Your task to perform on an android device: turn off wifi Image 0: 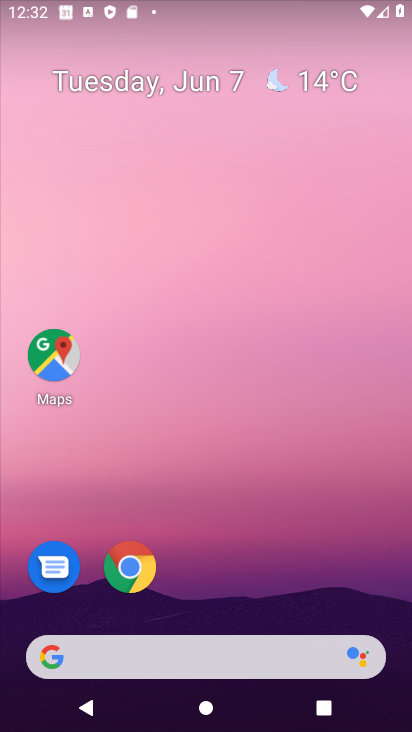
Step 0: drag from (239, 642) to (247, 131)
Your task to perform on an android device: turn off wifi Image 1: 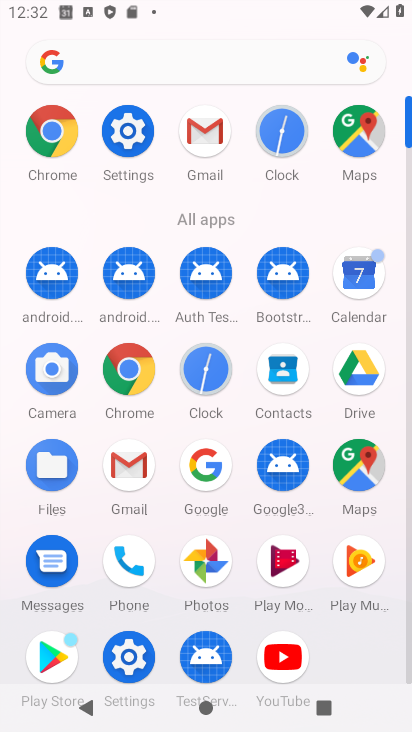
Step 1: click (125, 119)
Your task to perform on an android device: turn off wifi Image 2: 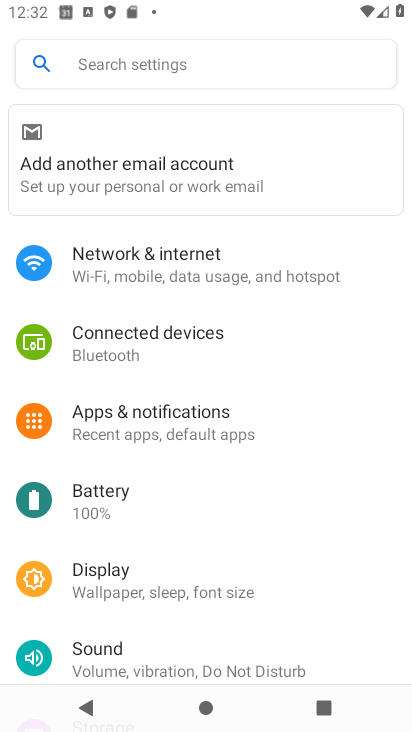
Step 2: click (144, 256)
Your task to perform on an android device: turn off wifi Image 3: 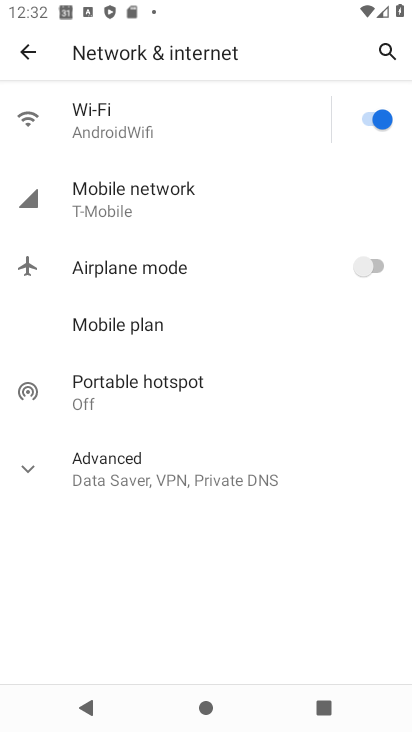
Step 3: click (363, 110)
Your task to perform on an android device: turn off wifi Image 4: 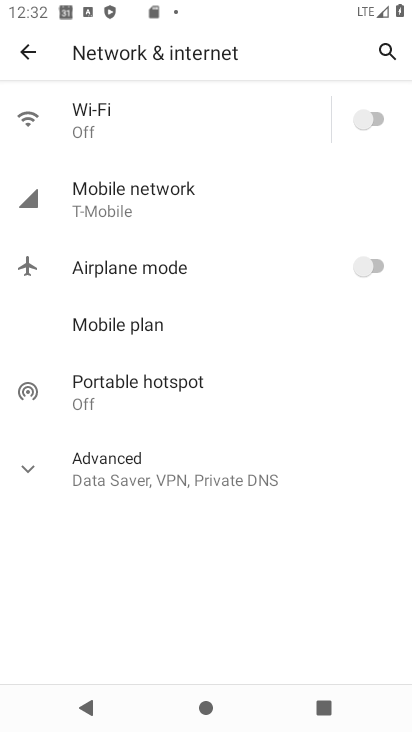
Step 4: task complete